Your task to perform on an android device: turn vacation reply on in the gmail app Image 0: 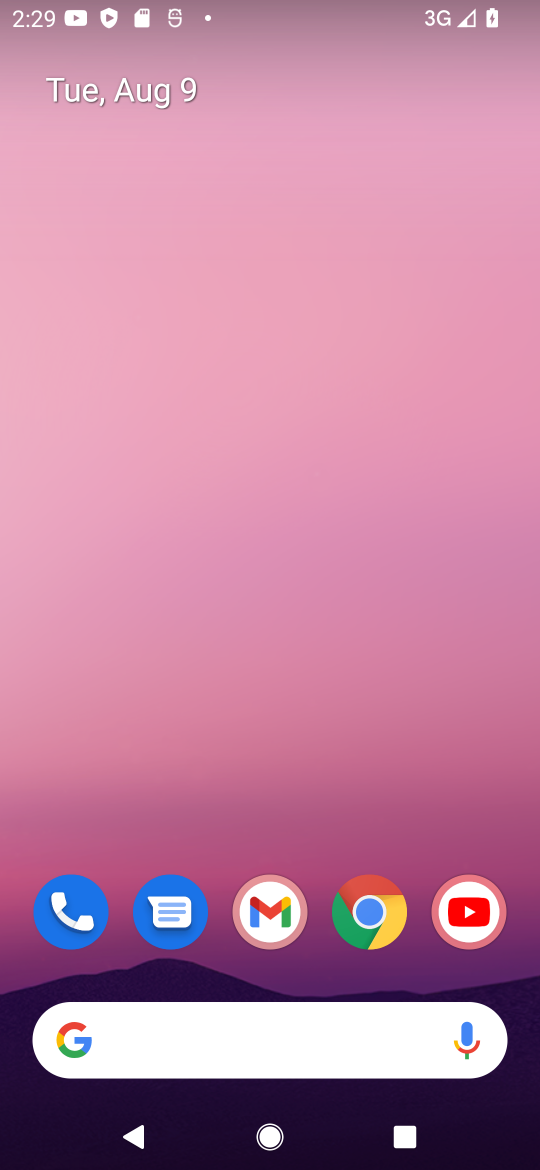
Step 0: click (275, 918)
Your task to perform on an android device: turn vacation reply on in the gmail app Image 1: 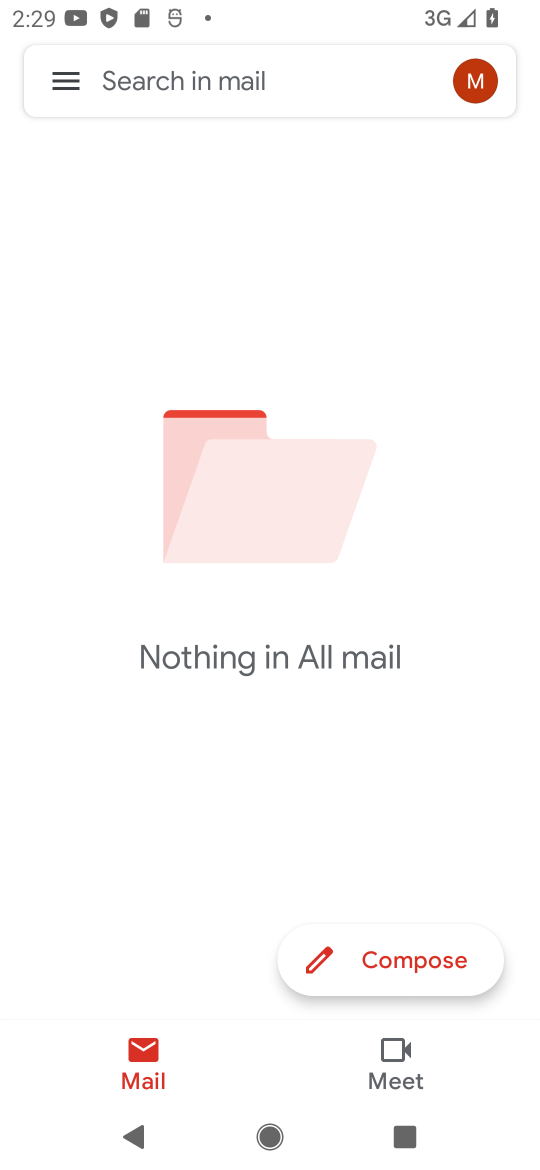
Step 1: click (54, 67)
Your task to perform on an android device: turn vacation reply on in the gmail app Image 2: 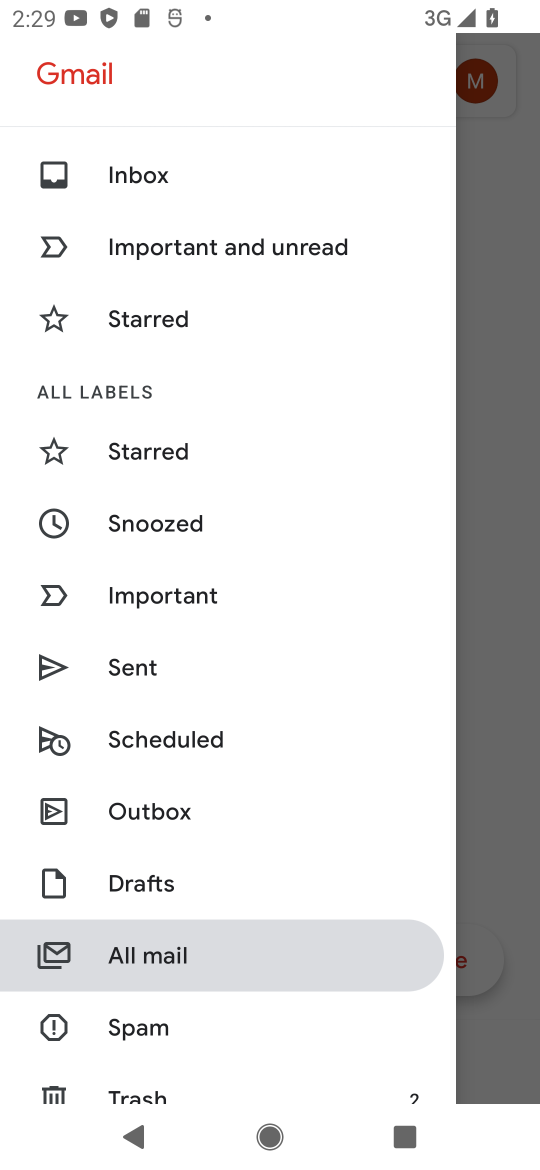
Step 2: drag from (257, 878) to (239, 350)
Your task to perform on an android device: turn vacation reply on in the gmail app Image 3: 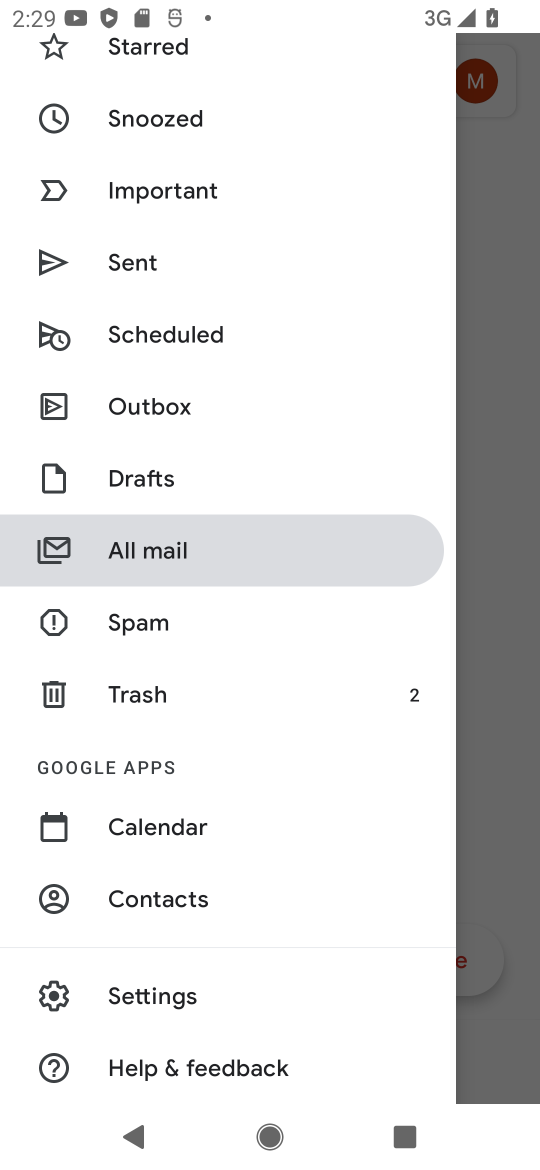
Step 3: click (160, 989)
Your task to perform on an android device: turn vacation reply on in the gmail app Image 4: 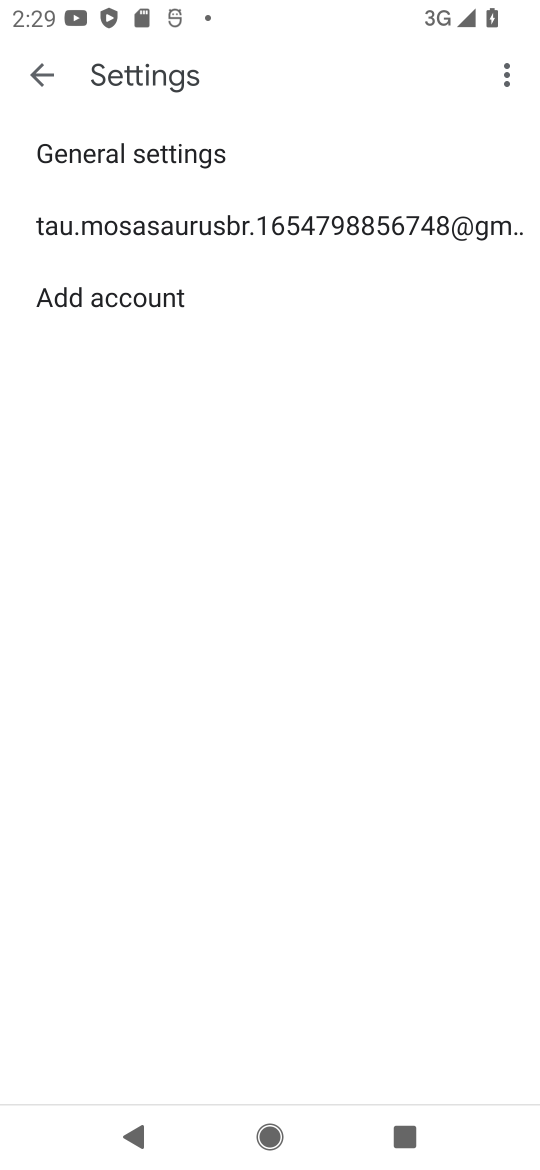
Step 4: click (147, 219)
Your task to perform on an android device: turn vacation reply on in the gmail app Image 5: 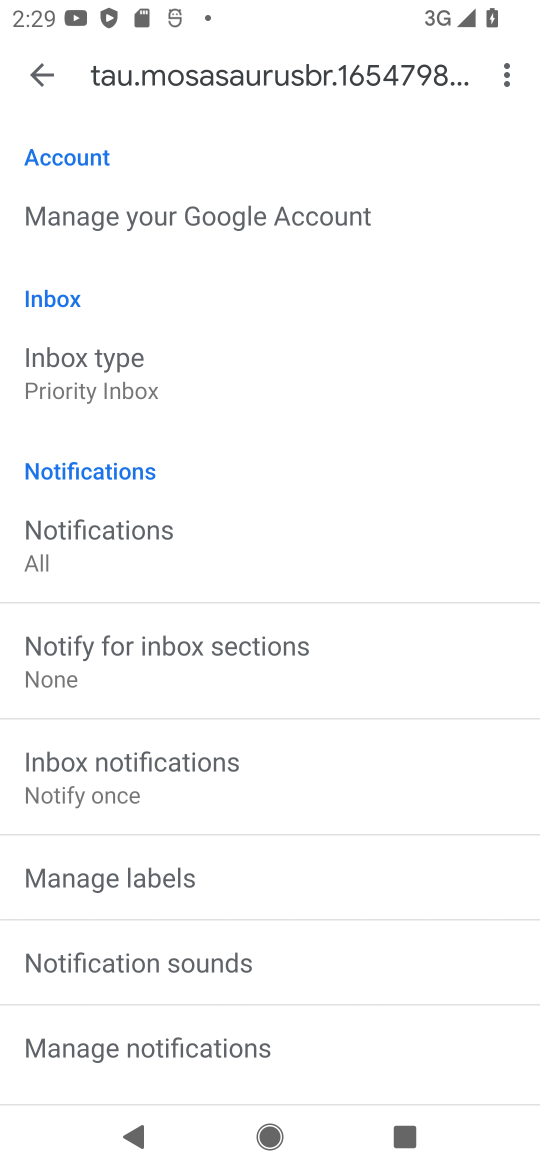
Step 5: drag from (324, 981) to (265, 194)
Your task to perform on an android device: turn vacation reply on in the gmail app Image 6: 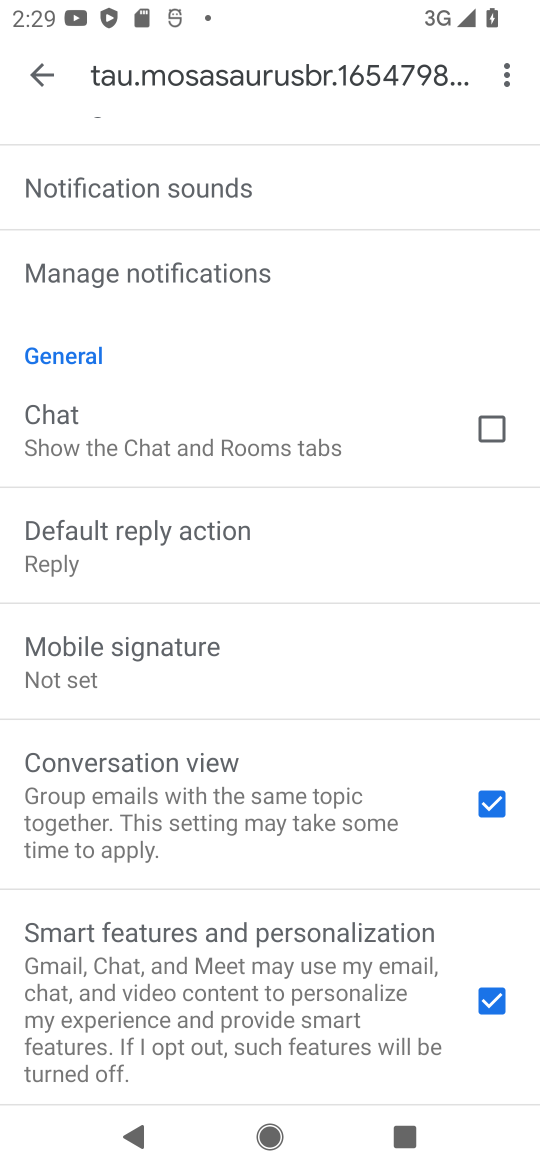
Step 6: drag from (304, 960) to (241, 382)
Your task to perform on an android device: turn vacation reply on in the gmail app Image 7: 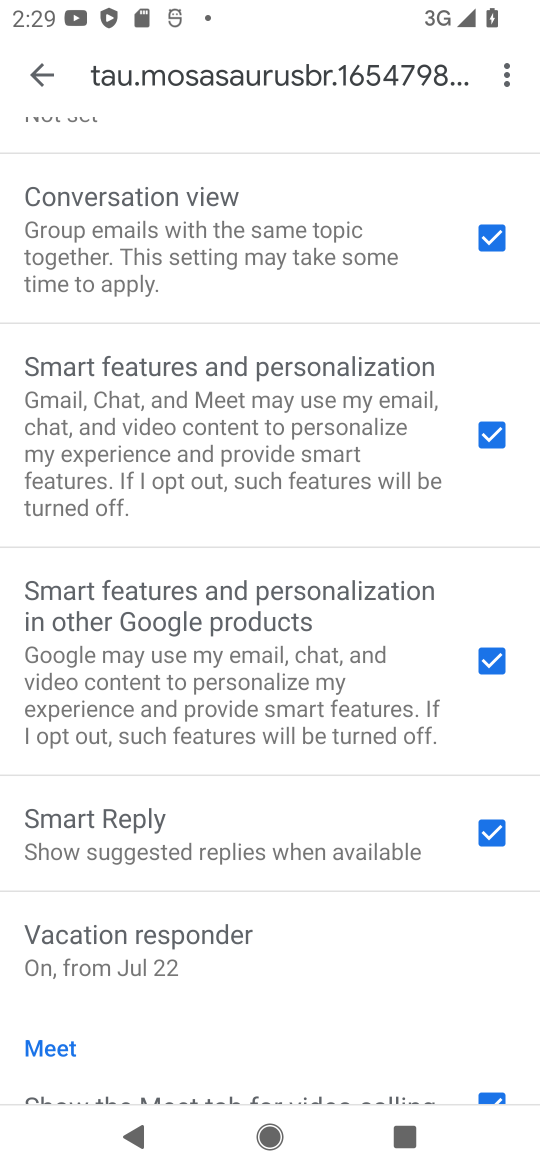
Step 7: drag from (266, 630) to (234, 170)
Your task to perform on an android device: turn vacation reply on in the gmail app Image 8: 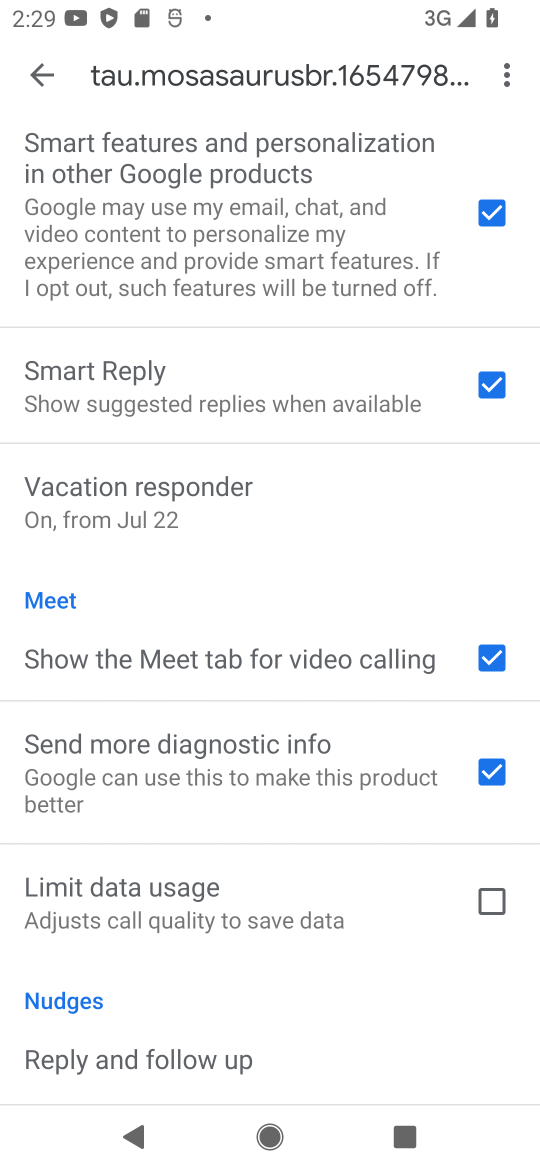
Step 8: click (136, 482)
Your task to perform on an android device: turn vacation reply on in the gmail app Image 9: 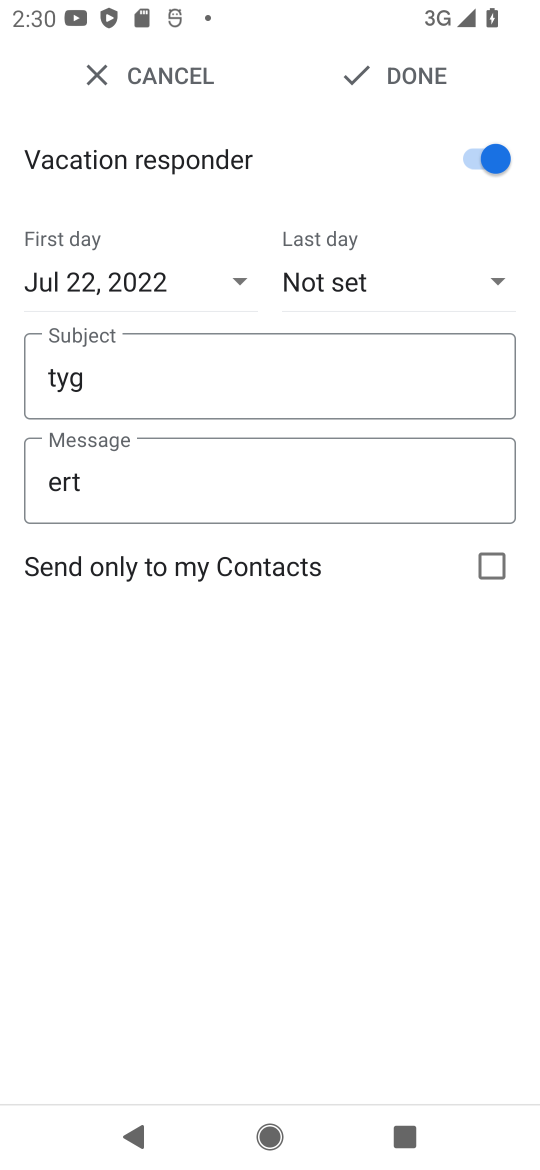
Step 9: task complete